Your task to perform on an android device: Open Google Image 0: 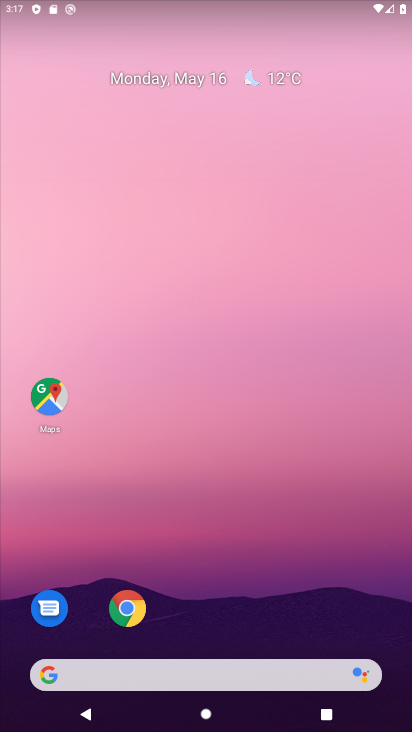
Step 0: drag from (275, 533) to (267, 45)
Your task to perform on an android device: Open Google Image 1: 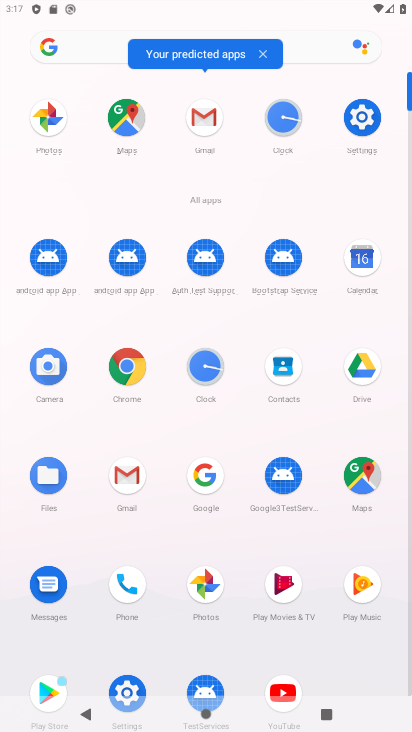
Step 1: click (202, 475)
Your task to perform on an android device: Open Google Image 2: 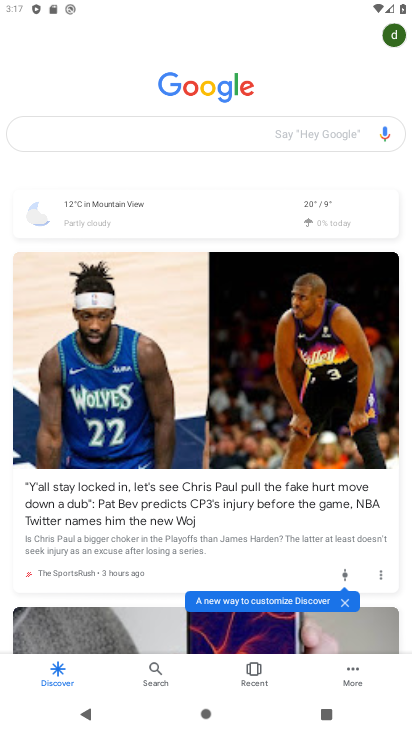
Step 2: task complete